Your task to perform on an android device: Empty the shopping cart on walmart.com. Search for "usb-b" on walmart.com, select the first entry, and add it to the cart. Image 0: 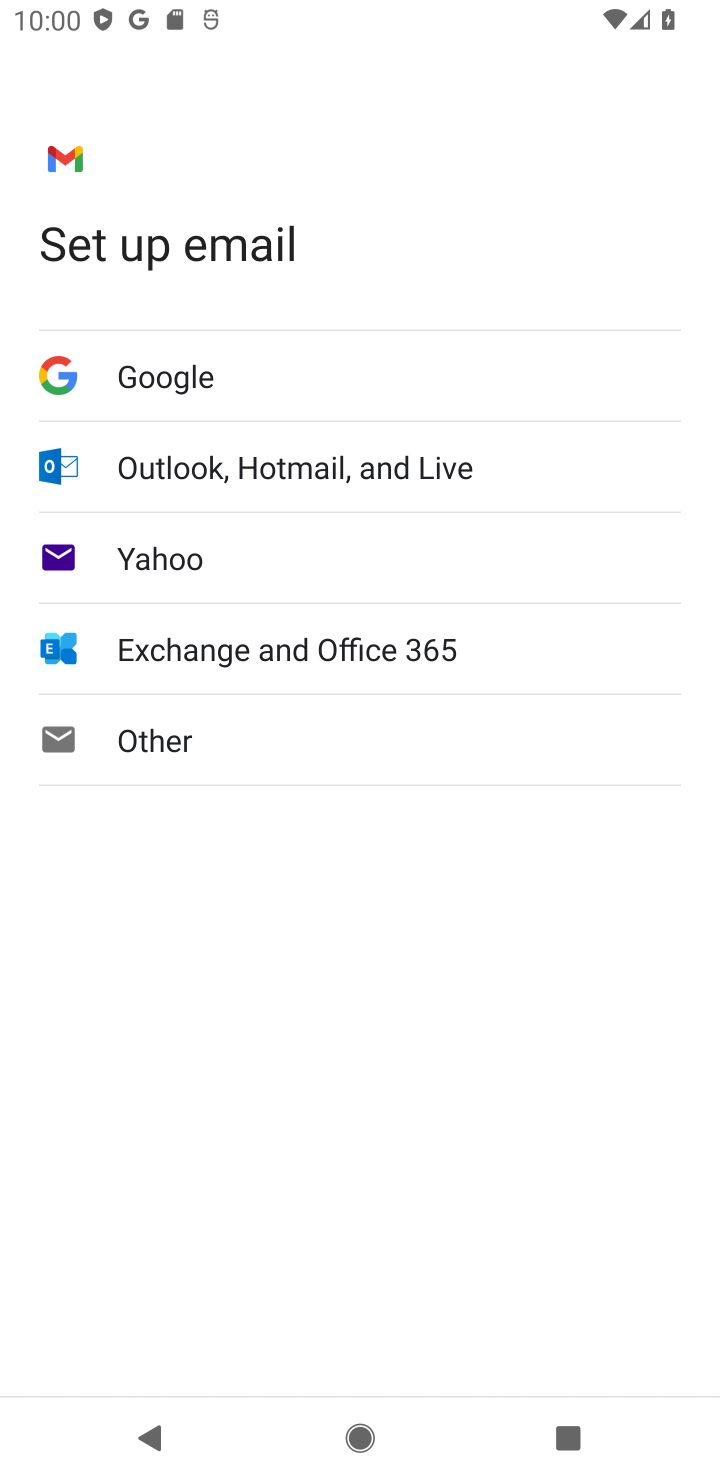
Step 0: press home button
Your task to perform on an android device: Empty the shopping cart on walmart.com. Search for "usb-b" on walmart.com, select the first entry, and add it to the cart. Image 1: 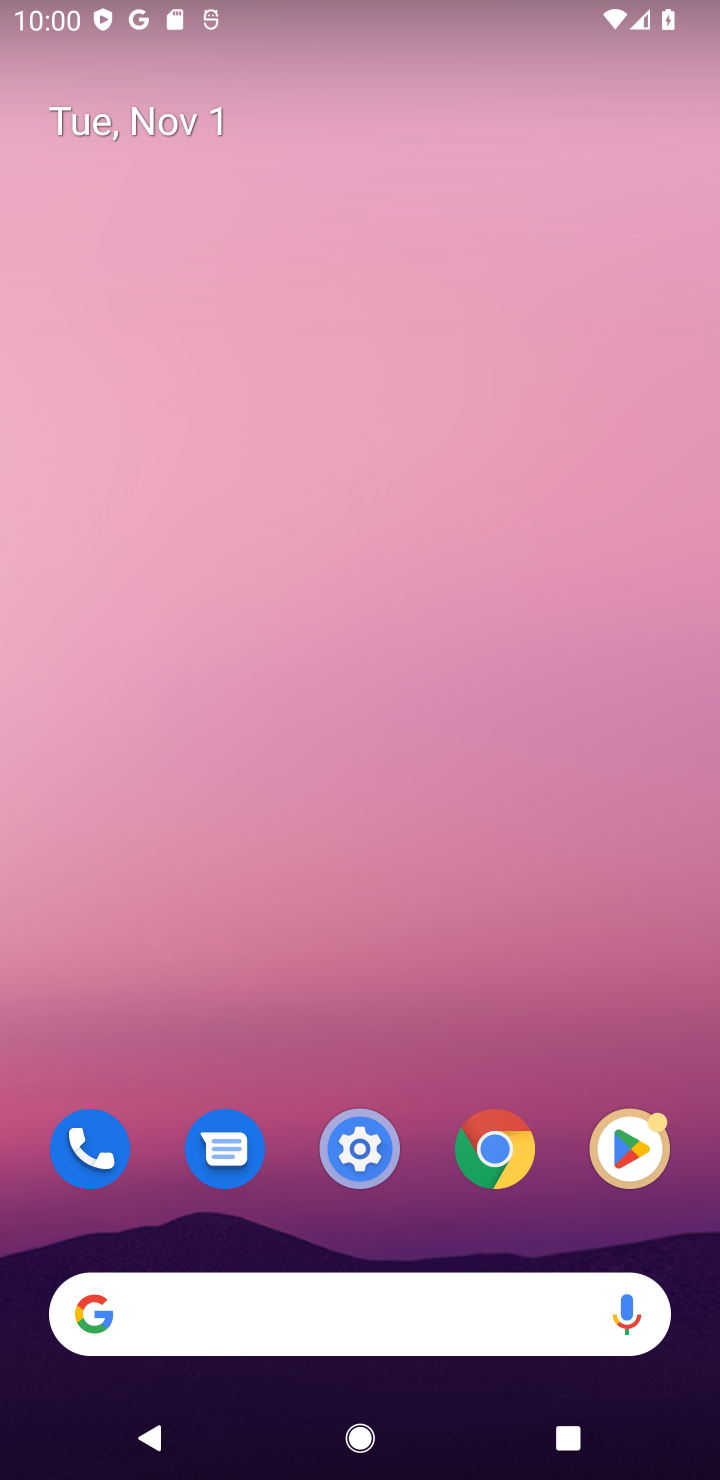
Step 1: click (141, 1316)
Your task to perform on an android device: Empty the shopping cart on walmart.com. Search for "usb-b" on walmart.com, select the first entry, and add it to the cart. Image 2: 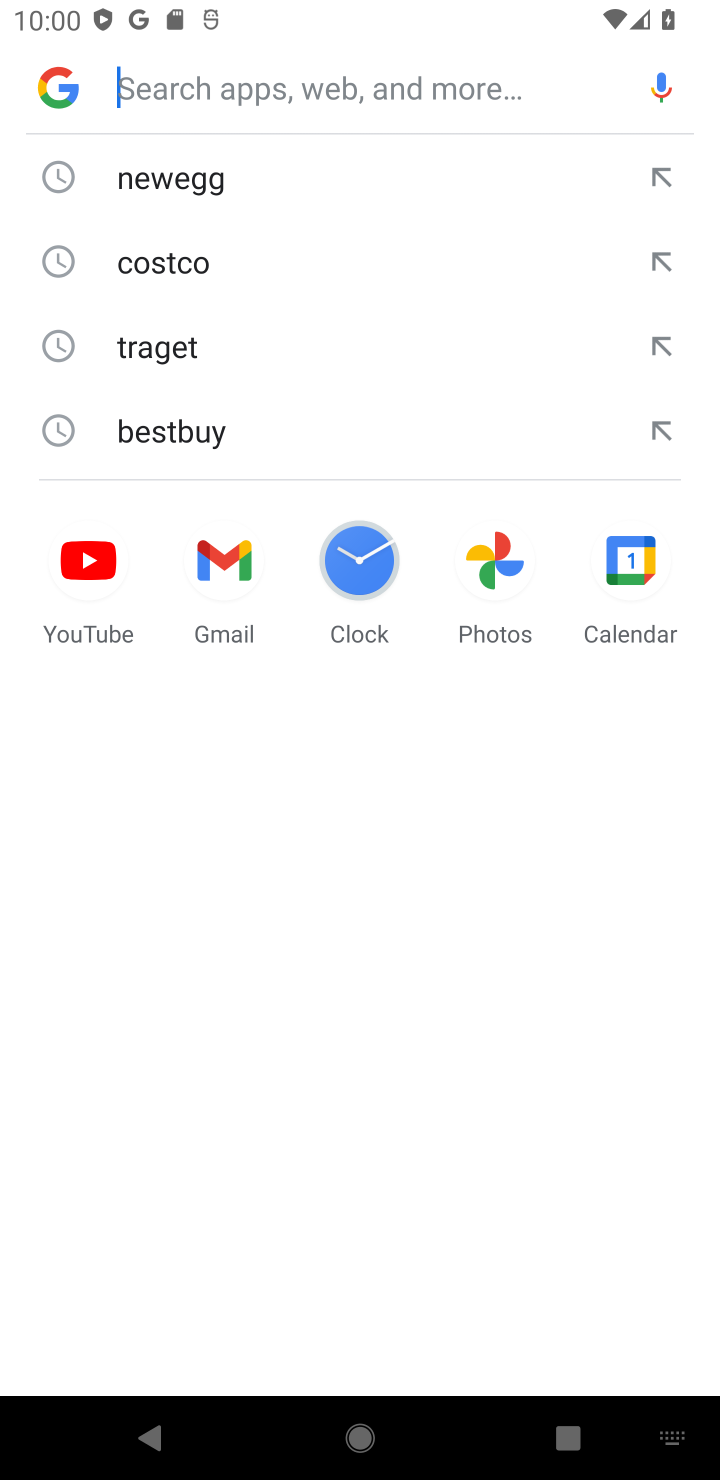
Step 2: type "walmart.com"
Your task to perform on an android device: Empty the shopping cart on walmart.com. Search for "usb-b" on walmart.com, select the first entry, and add it to the cart. Image 3: 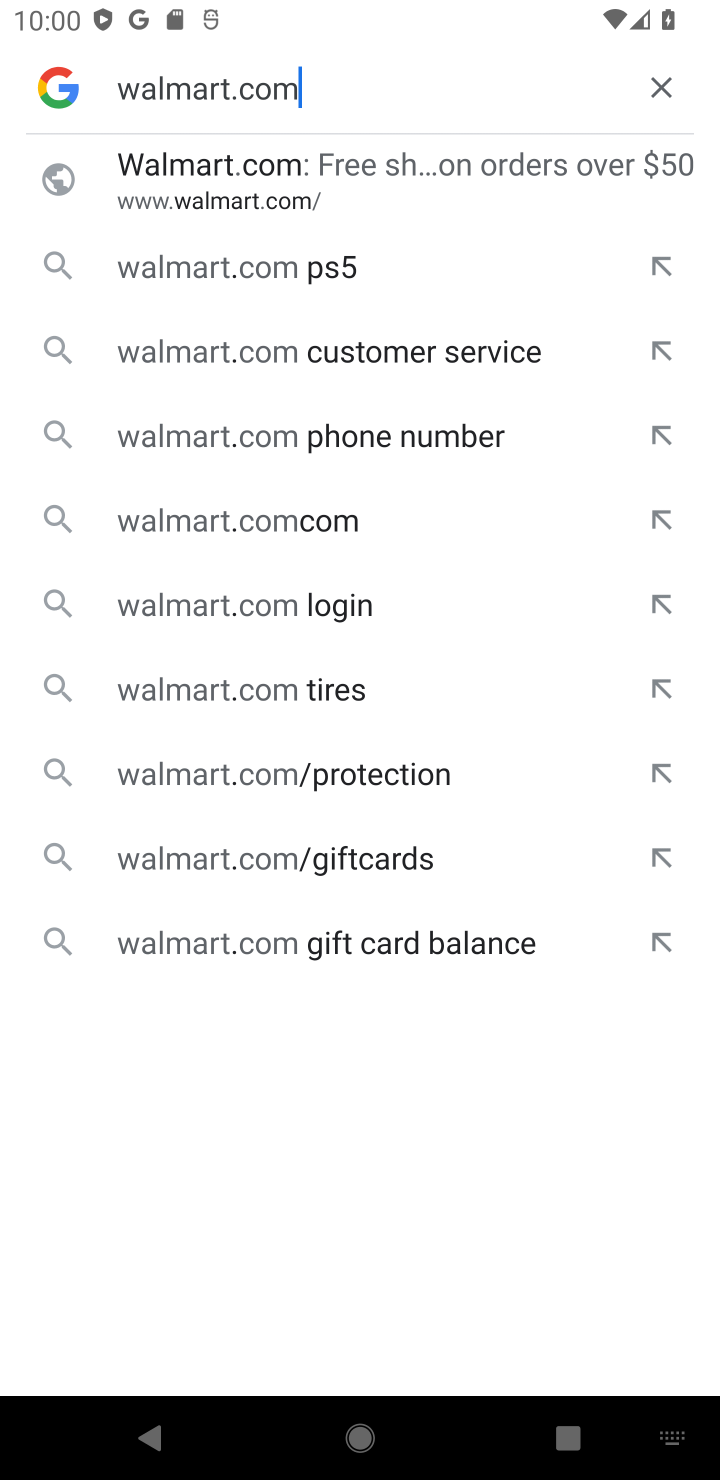
Step 3: press enter
Your task to perform on an android device: Empty the shopping cart on walmart.com. Search for "usb-b" on walmart.com, select the first entry, and add it to the cart. Image 4: 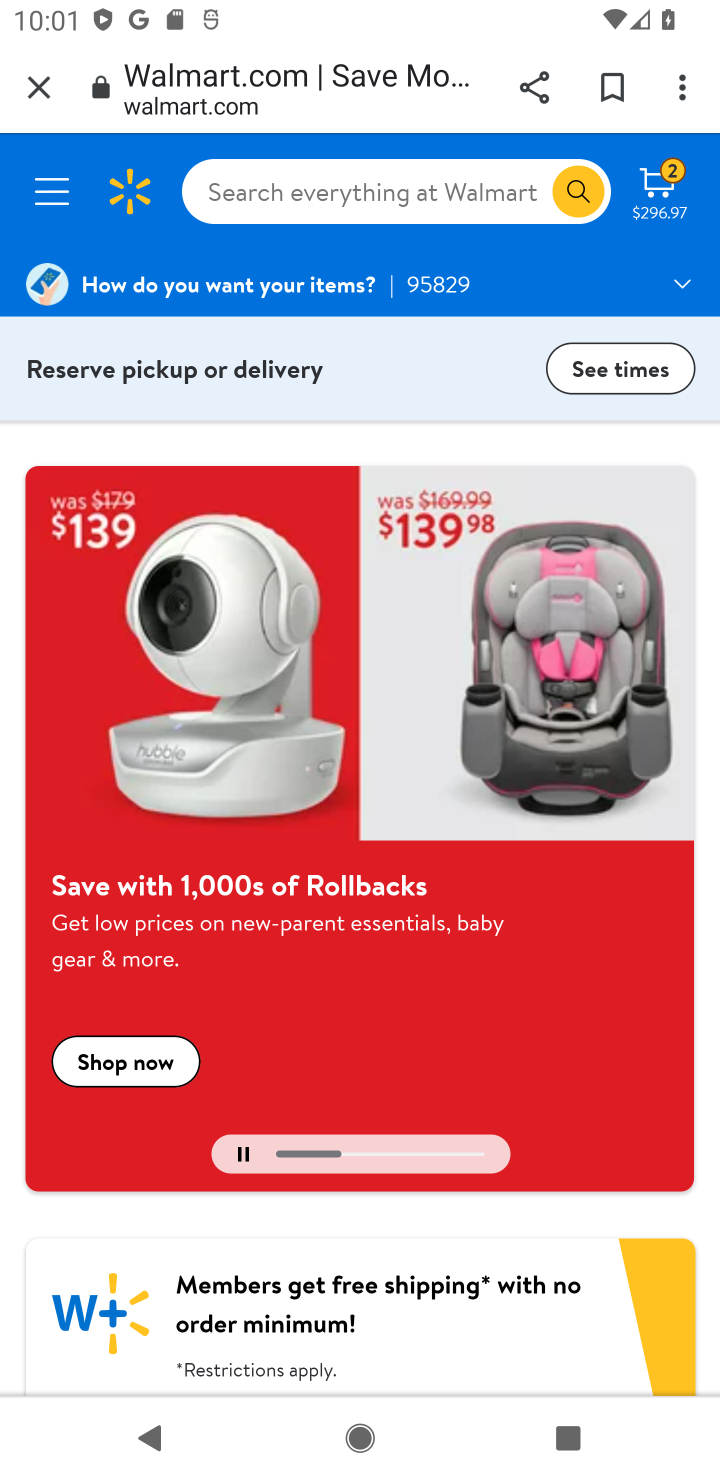
Step 4: click (665, 179)
Your task to perform on an android device: Empty the shopping cart on walmart.com. Search for "usb-b" on walmart.com, select the first entry, and add it to the cart. Image 5: 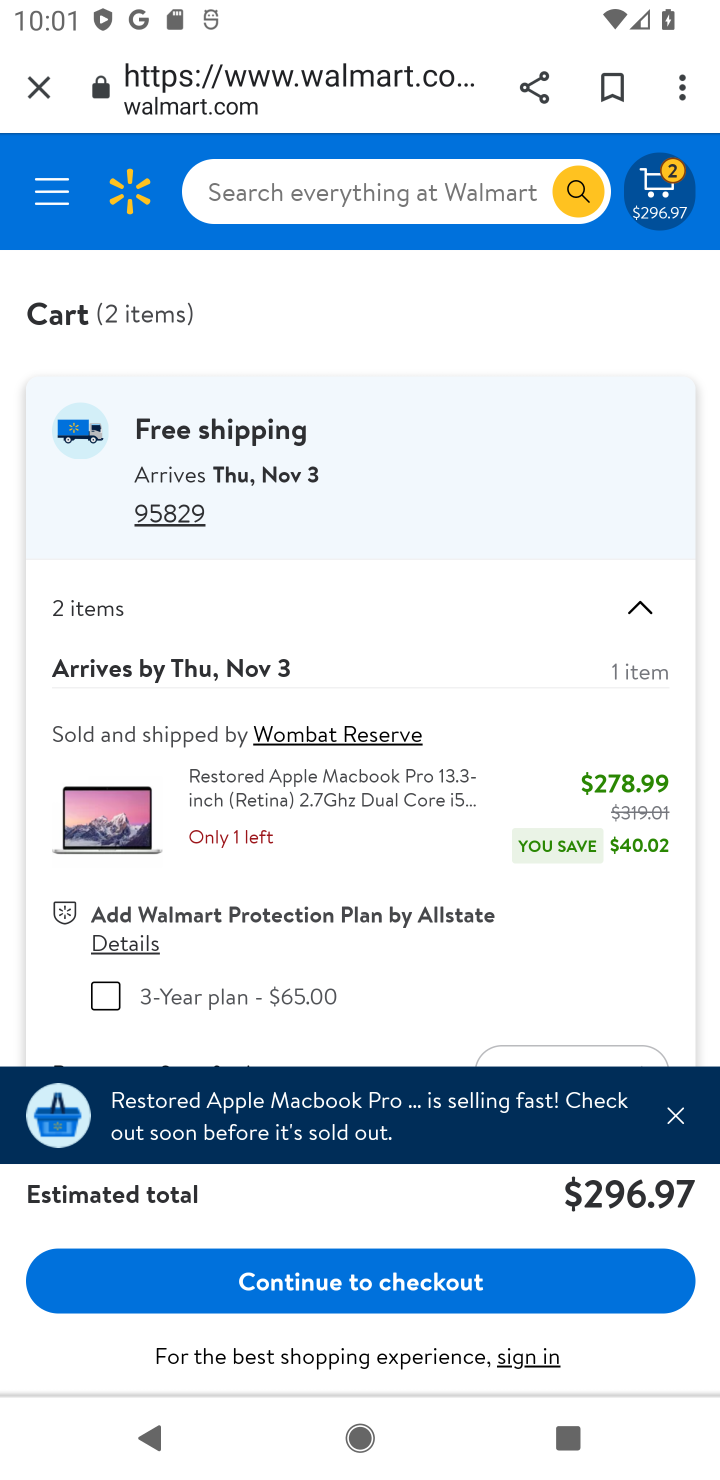
Step 5: click (678, 1118)
Your task to perform on an android device: Empty the shopping cart on walmart.com. Search for "usb-b" on walmart.com, select the first entry, and add it to the cart. Image 6: 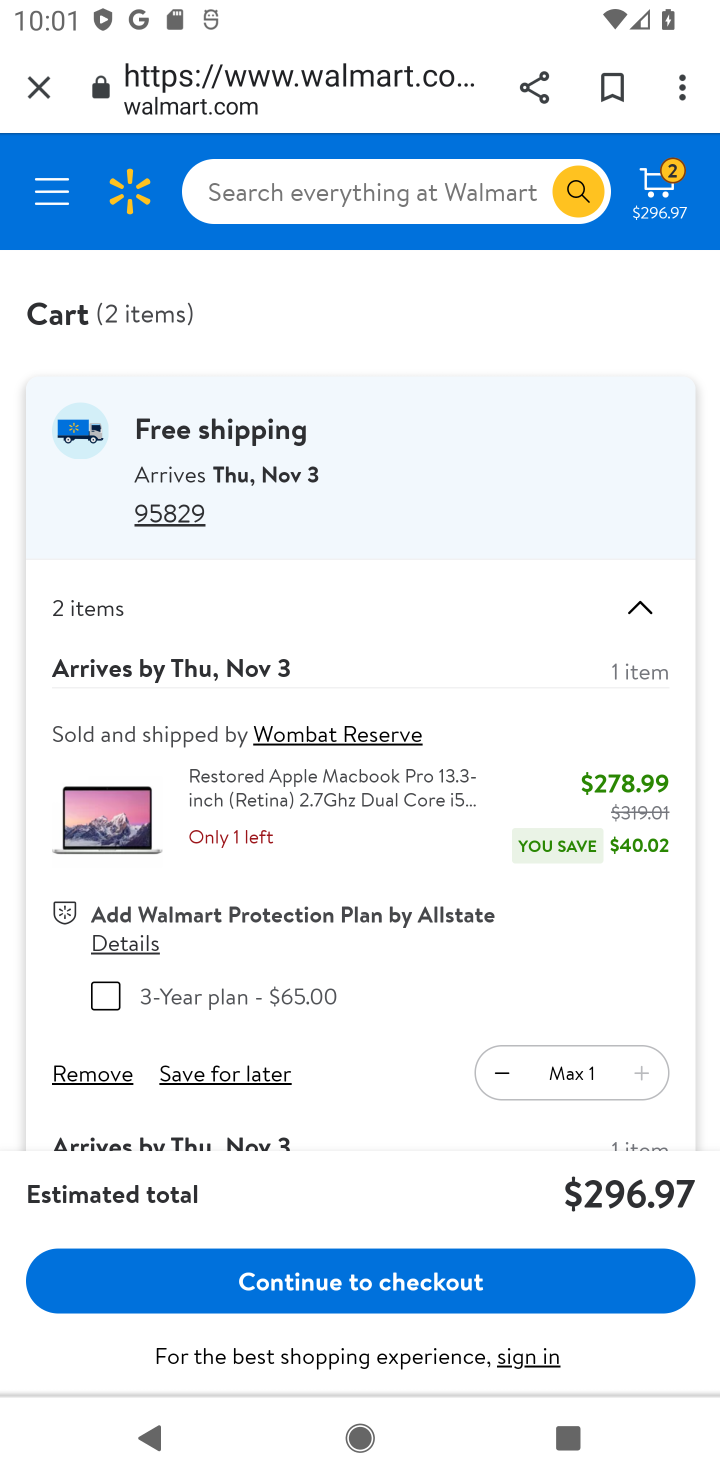
Step 6: click (65, 1073)
Your task to perform on an android device: Empty the shopping cart on walmart.com. Search for "usb-b" on walmart.com, select the first entry, and add it to the cart. Image 7: 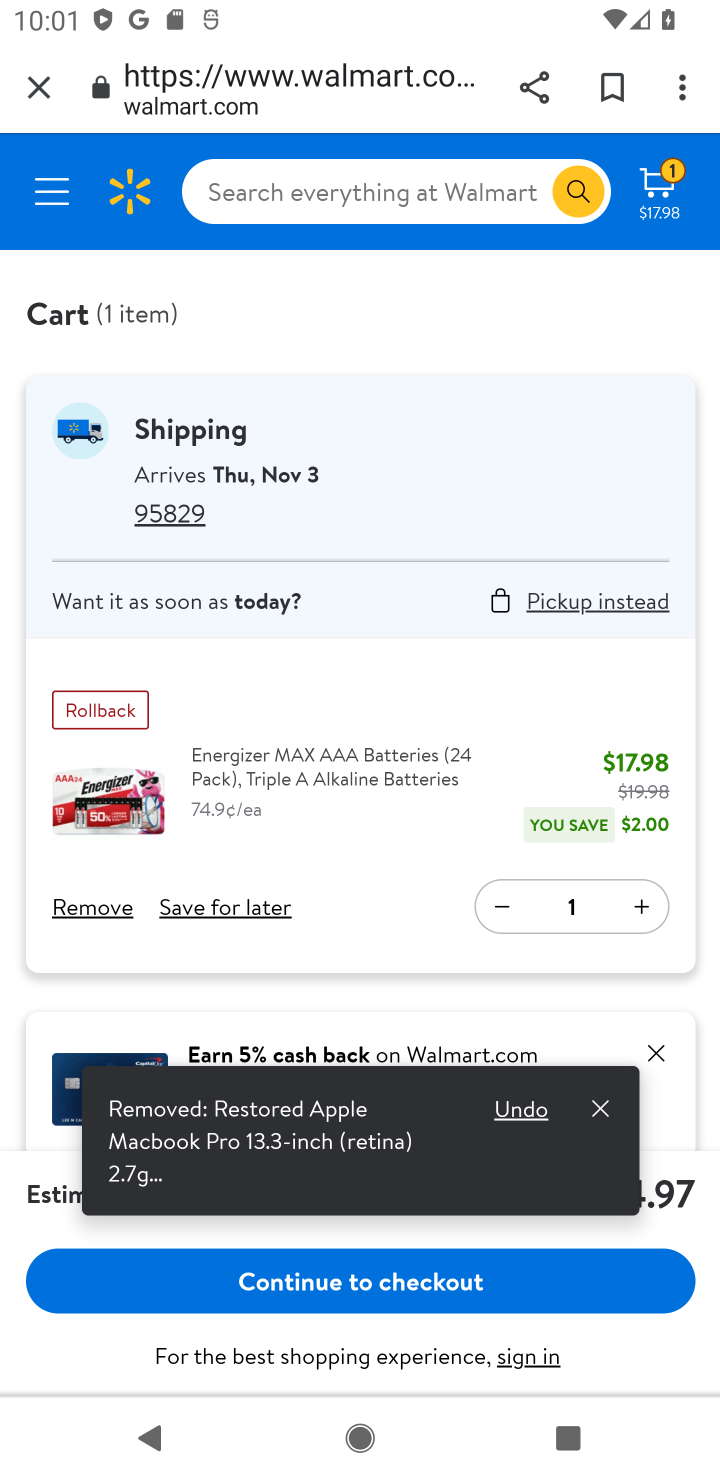
Step 7: click (82, 900)
Your task to perform on an android device: Empty the shopping cart on walmart.com. Search for "usb-b" on walmart.com, select the first entry, and add it to the cart. Image 8: 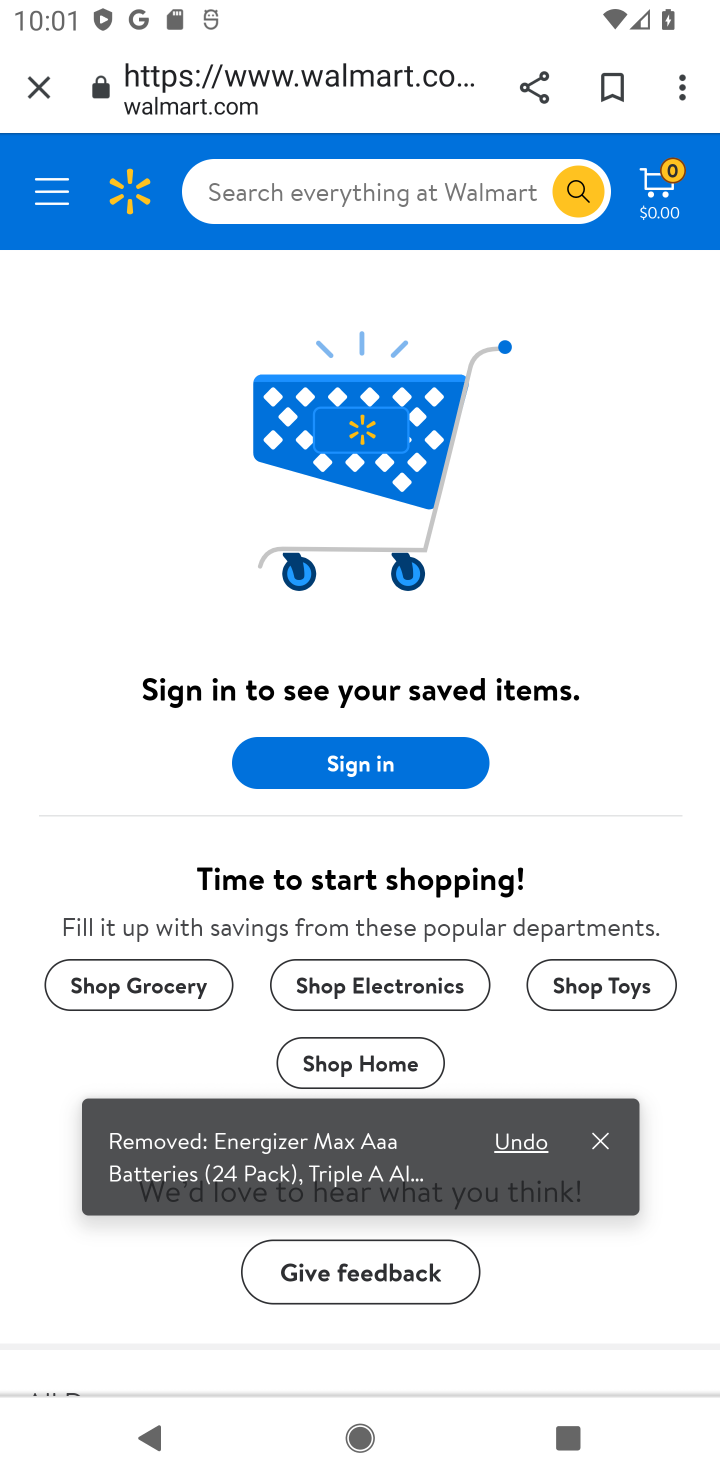
Step 8: click (246, 194)
Your task to perform on an android device: Empty the shopping cart on walmart.com. Search for "usb-b" on walmart.com, select the first entry, and add it to the cart. Image 9: 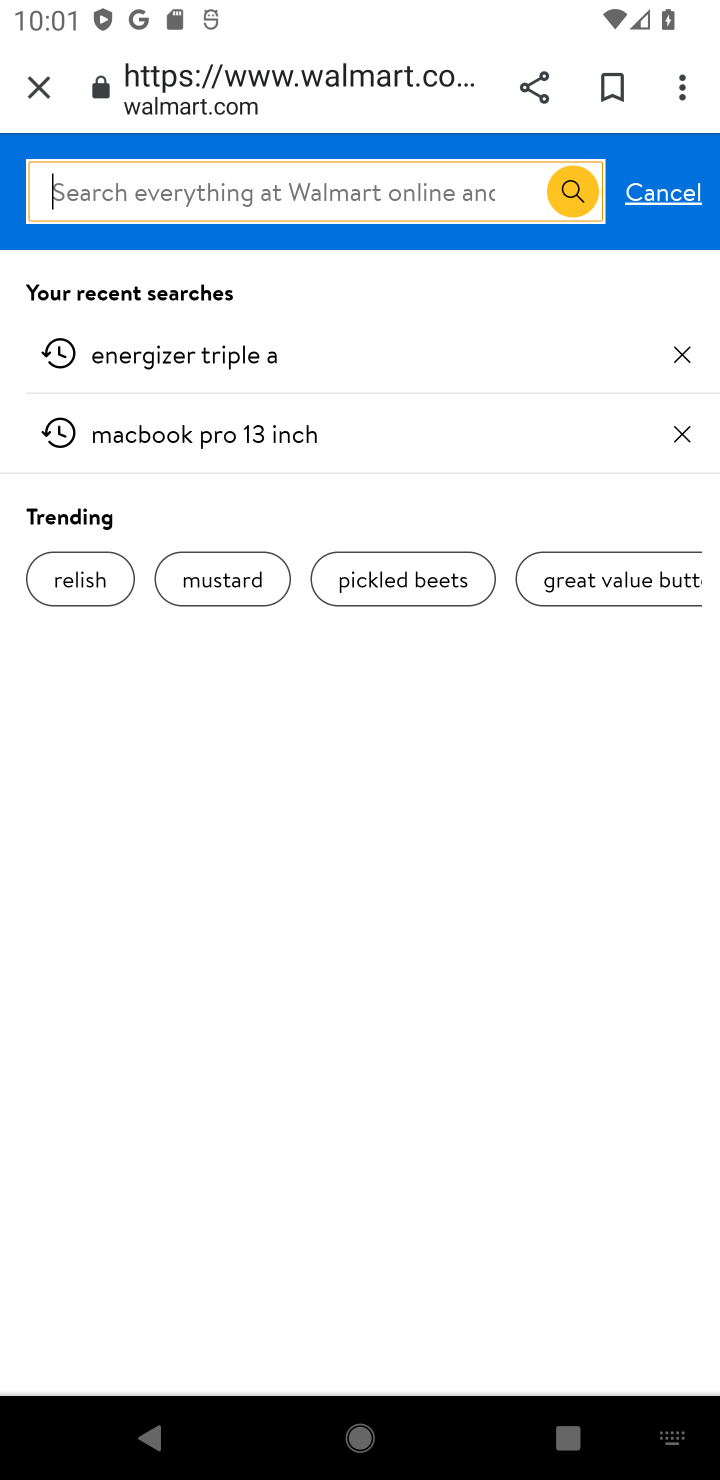
Step 9: type "usb-b"
Your task to perform on an android device: Empty the shopping cart on walmart.com. Search for "usb-b" on walmart.com, select the first entry, and add it to the cart. Image 10: 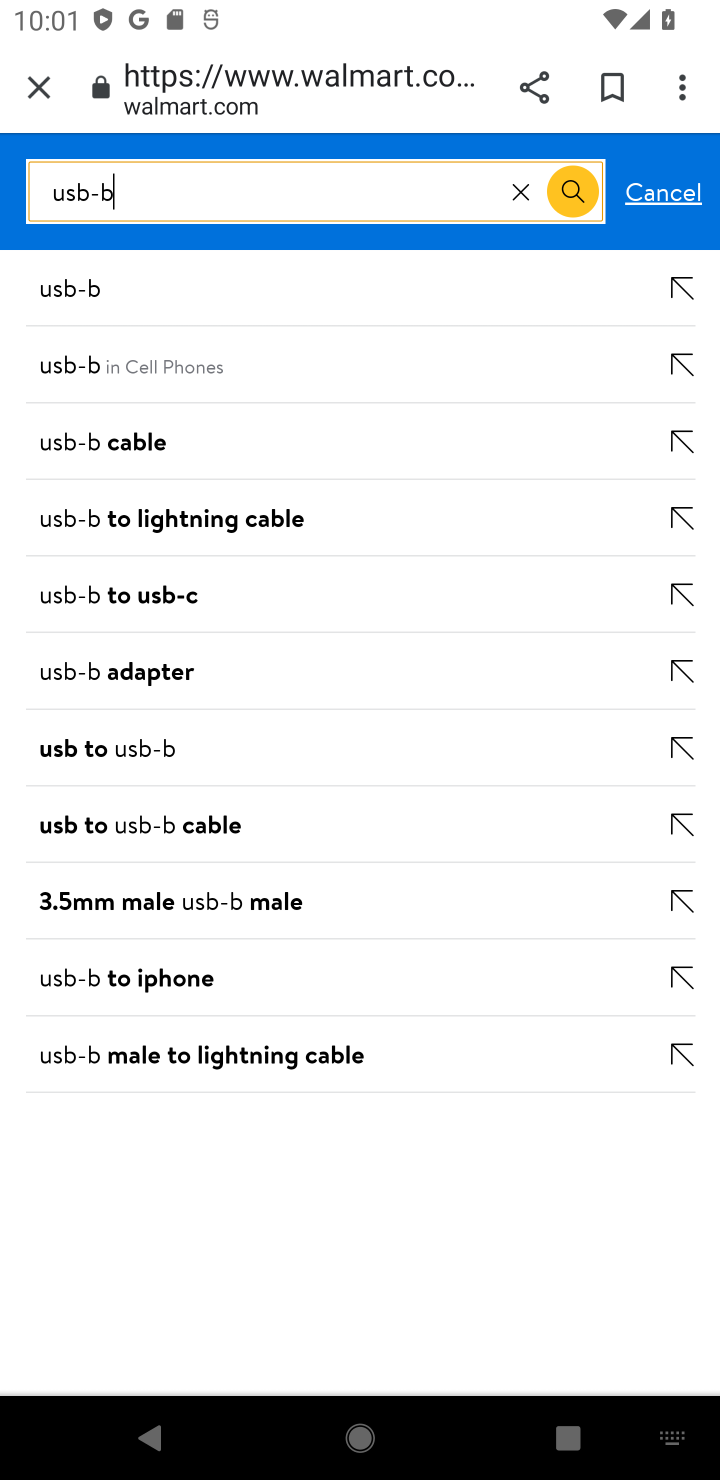
Step 10: click (562, 180)
Your task to perform on an android device: Empty the shopping cart on walmart.com. Search for "usb-b" on walmart.com, select the first entry, and add it to the cart. Image 11: 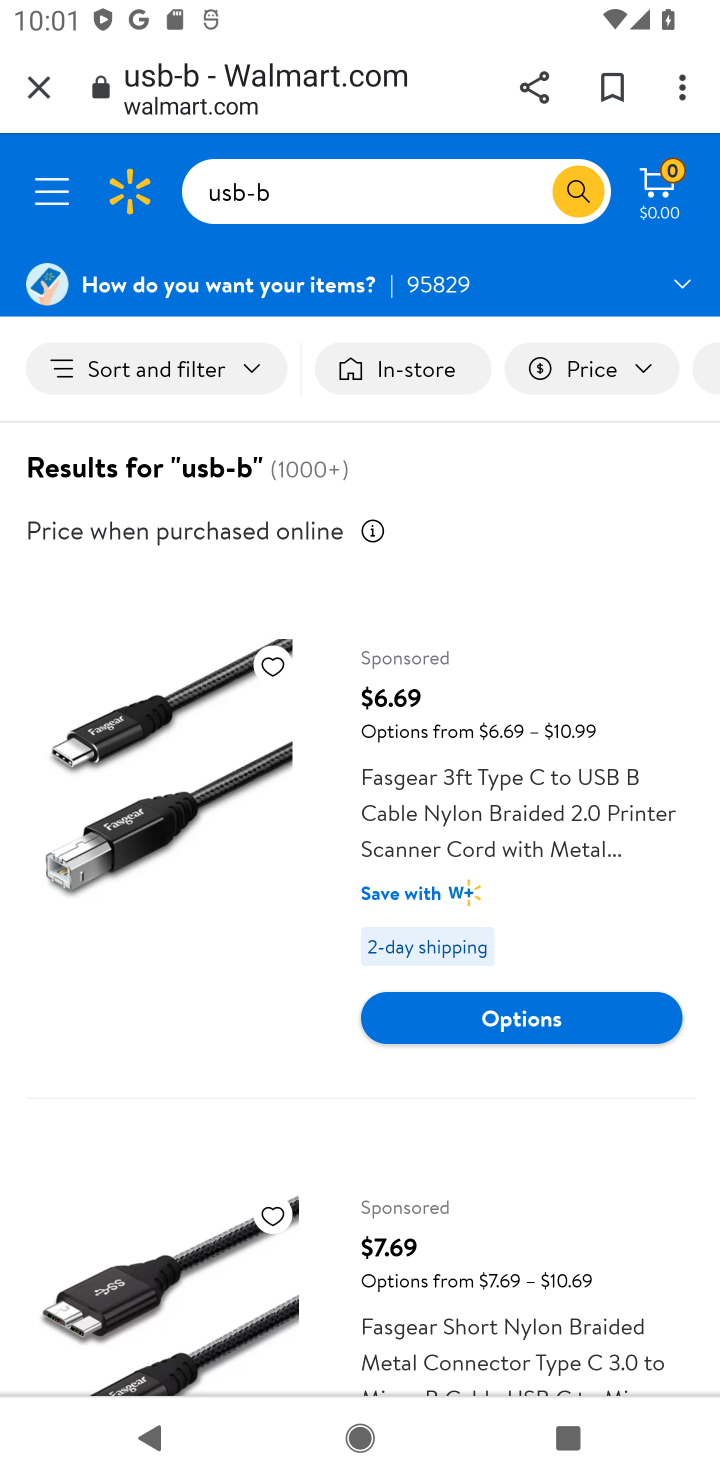
Step 11: click (470, 800)
Your task to perform on an android device: Empty the shopping cart on walmart.com. Search for "usb-b" on walmart.com, select the first entry, and add it to the cart. Image 12: 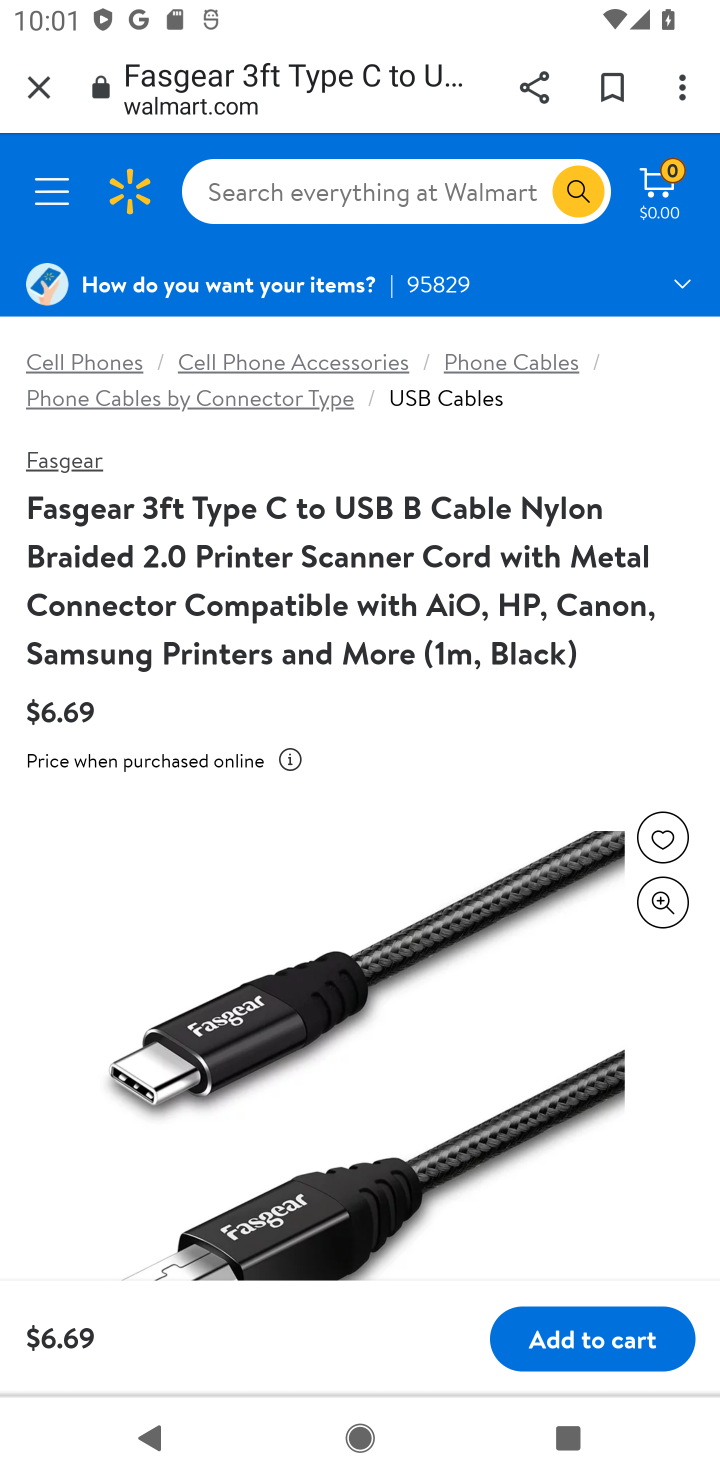
Step 12: click (621, 1340)
Your task to perform on an android device: Empty the shopping cart on walmart.com. Search for "usb-b" on walmart.com, select the first entry, and add it to the cart. Image 13: 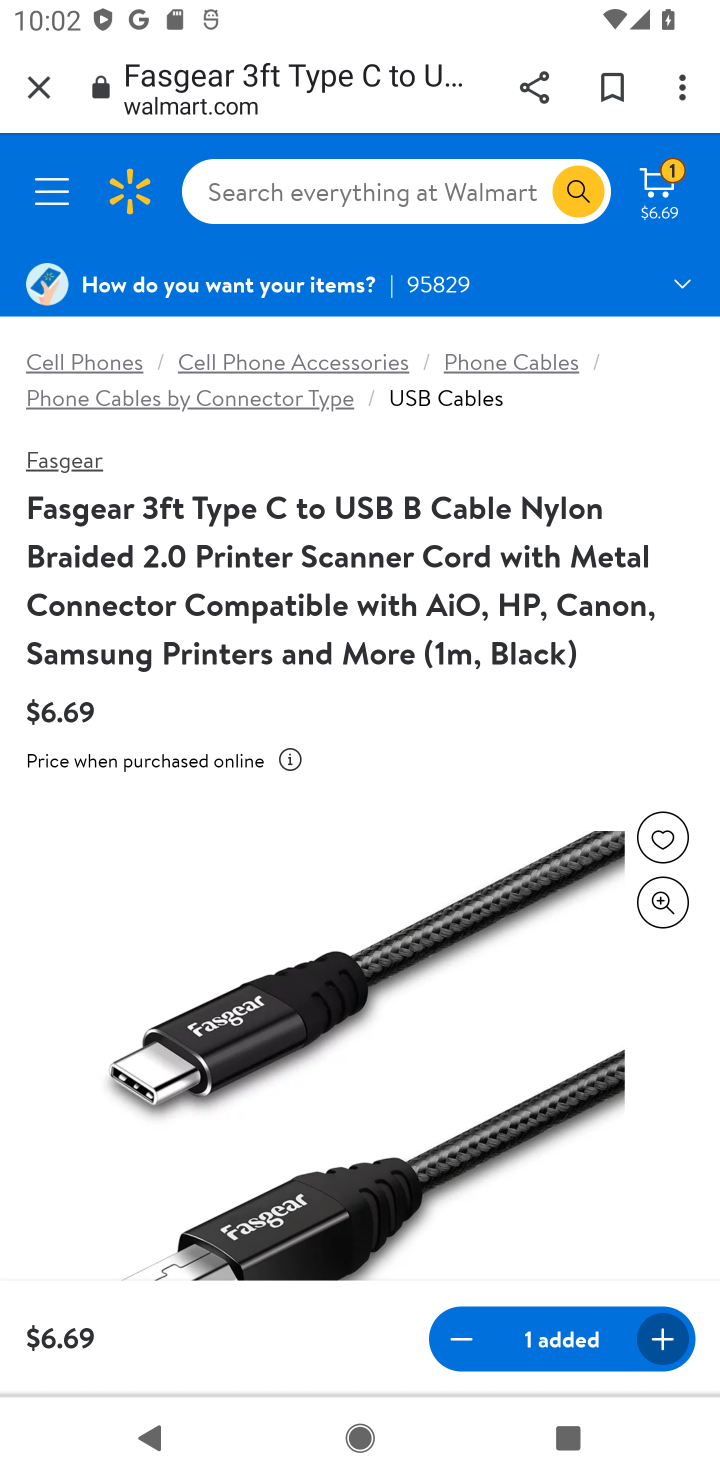
Step 13: task complete